Your task to perform on an android device: open app "Lyft - Rideshare, Bikes, Scooters & Transit" (install if not already installed) and go to login screen Image 0: 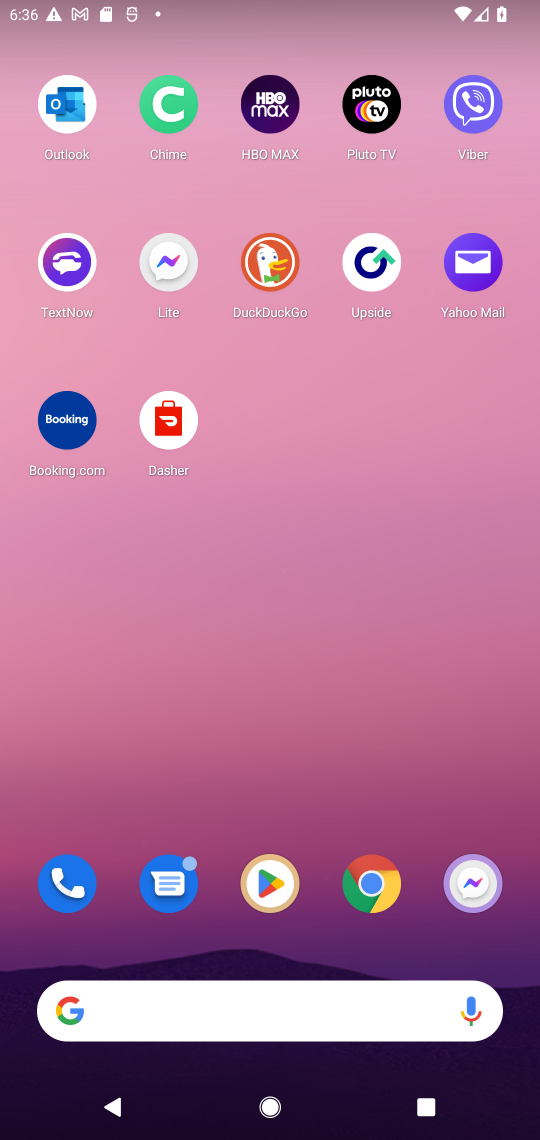
Step 0: click (286, 886)
Your task to perform on an android device: open app "Lyft - Rideshare, Bikes, Scooters & Transit" (install if not already installed) and go to login screen Image 1: 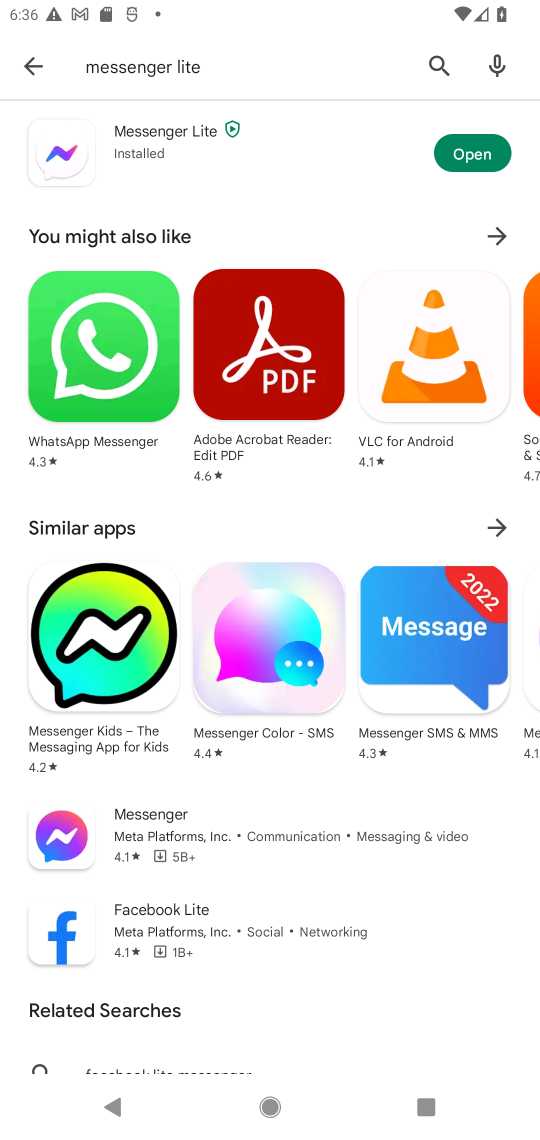
Step 1: click (439, 68)
Your task to perform on an android device: open app "Lyft - Rideshare, Bikes, Scooters & Transit" (install if not already installed) and go to login screen Image 2: 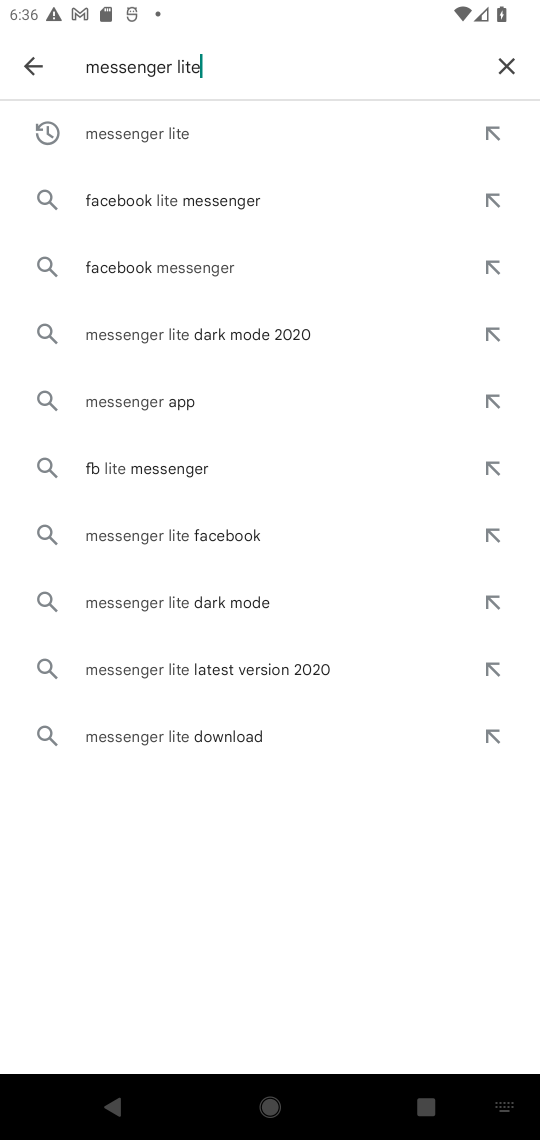
Step 2: click (505, 65)
Your task to perform on an android device: open app "Lyft - Rideshare, Bikes, Scooters & Transit" (install if not already installed) and go to login screen Image 3: 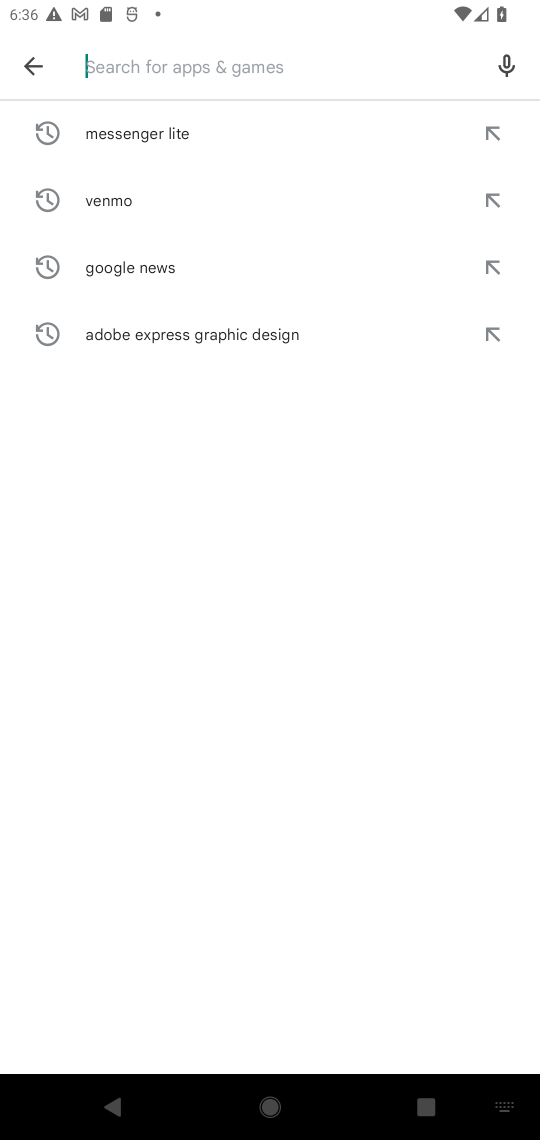
Step 3: type "Lyft"
Your task to perform on an android device: open app "Lyft - Rideshare, Bikes, Scooters & Transit" (install if not already installed) and go to login screen Image 4: 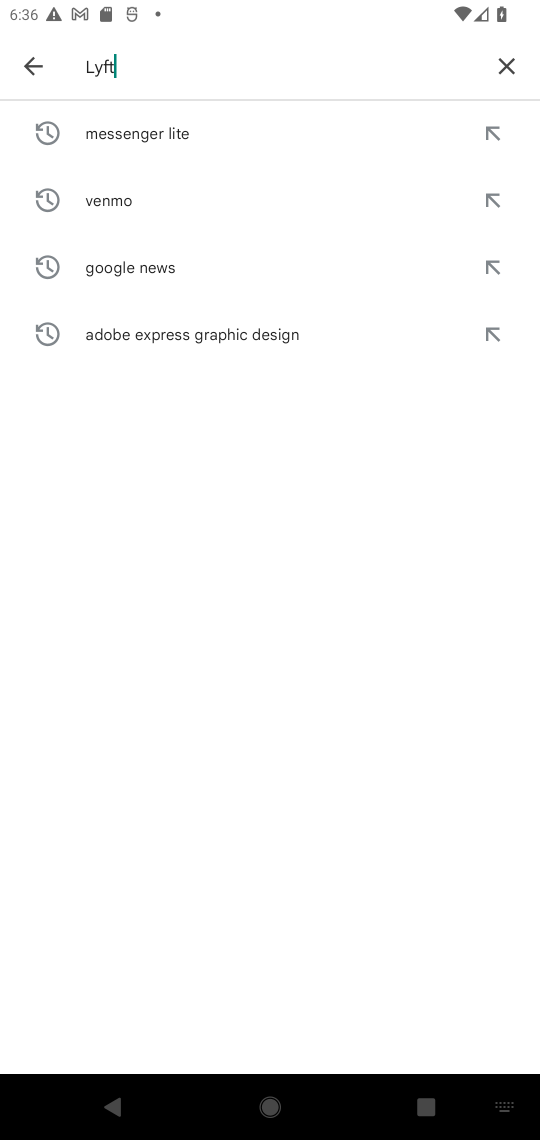
Step 4: type ""
Your task to perform on an android device: open app "Lyft - Rideshare, Bikes, Scooters & Transit" (install if not already installed) and go to login screen Image 5: 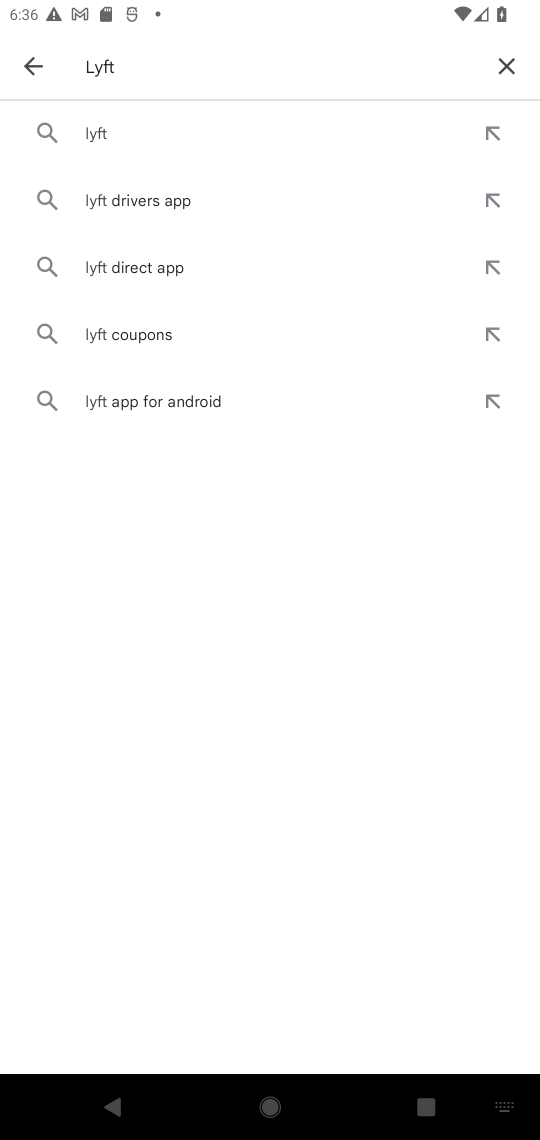
Step 5: click (153, 135)
Your task to perform on an android device: open app "Lyft - Rideshare, Bikes, Scooters & Transit" (install if not already installed) and go to login screen Image 6: 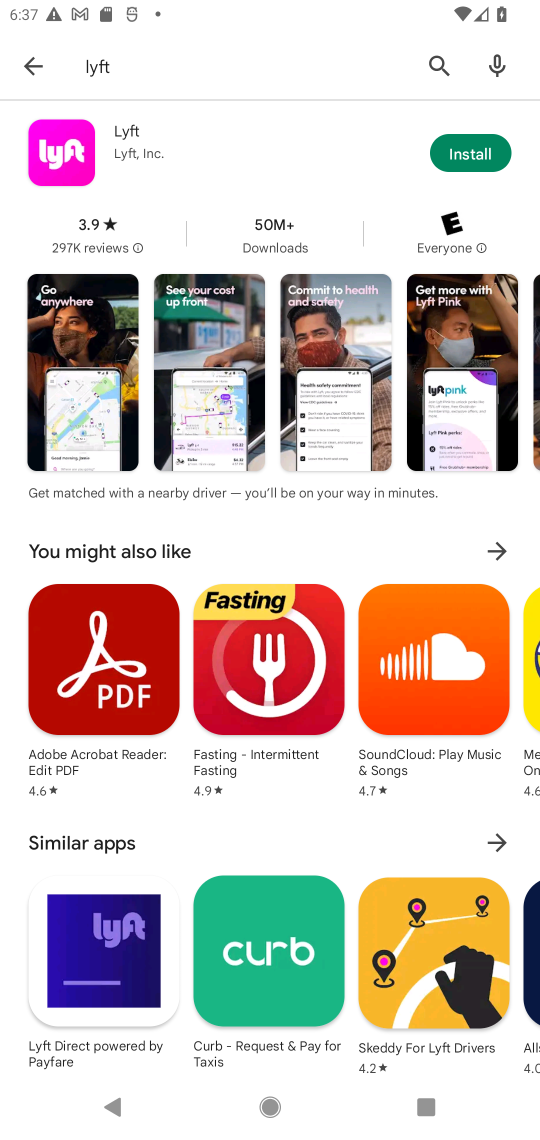
Step 6: click (454, 148)
Your task to perform on an android device: open app "Lyft - Rideshare, Bikes, Scooters & Transit" (install if not already installed) and go to login screen Image 7: 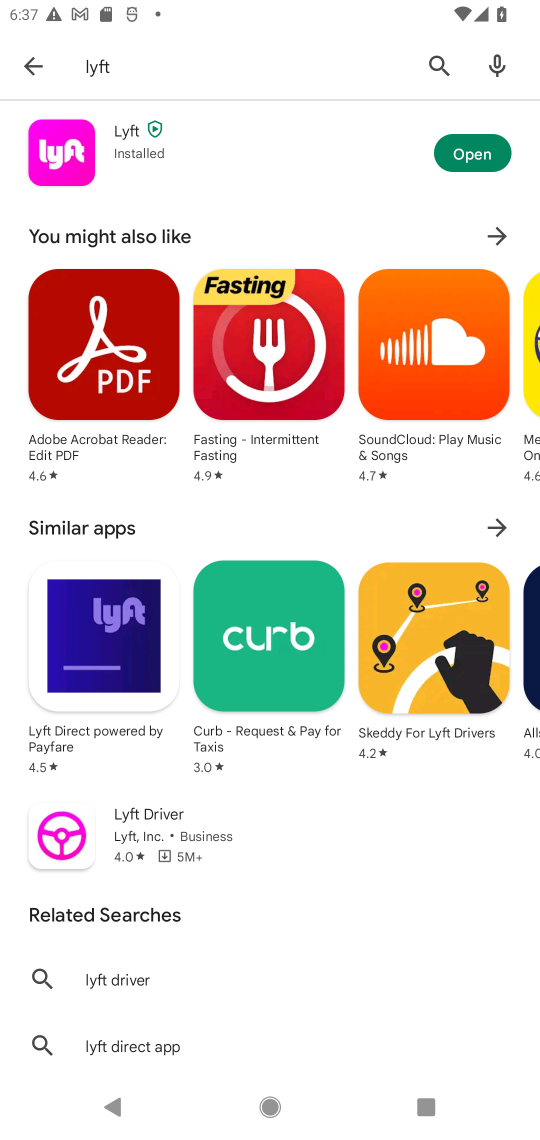
Step 7: click (469, 143)
Your task to perform on an android device: open app "Lyft - Rideshare, Bikes, Scooters & Transit" (install if not already installed) and go to login screen Image 8: 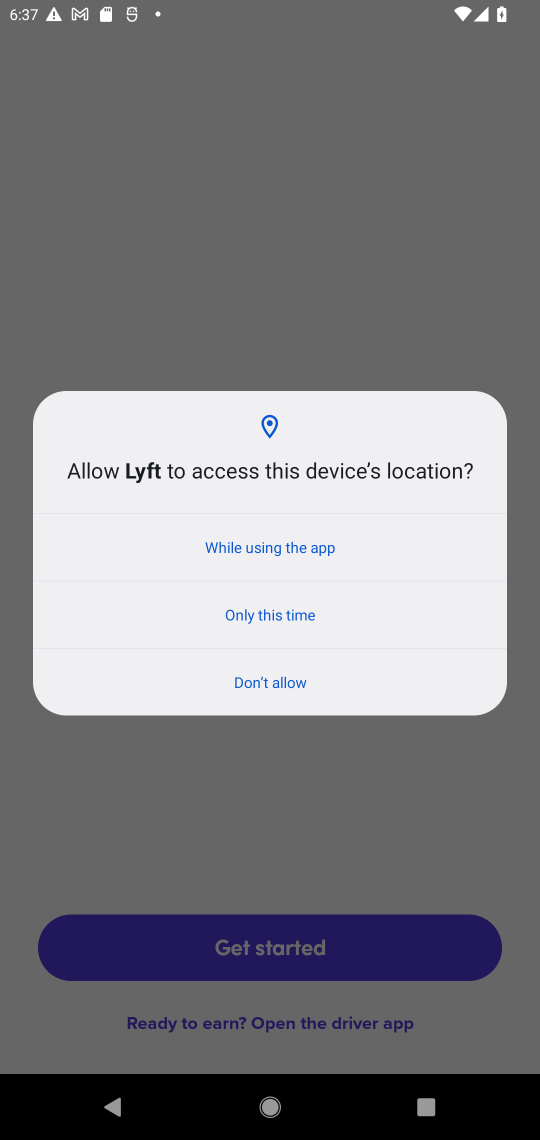
Step 8: task complete